Your task to perform on an android device: Clear the cart on walmart. Image 0: 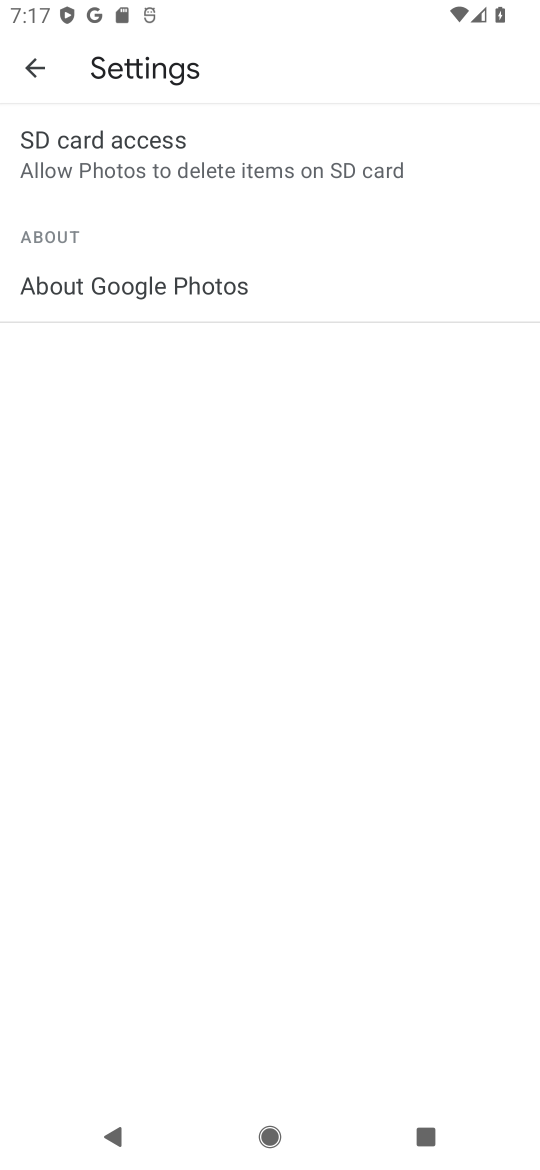
Step 0: press home button
Your task to perform on an android device: Clear the cart on walmart. Image 1: 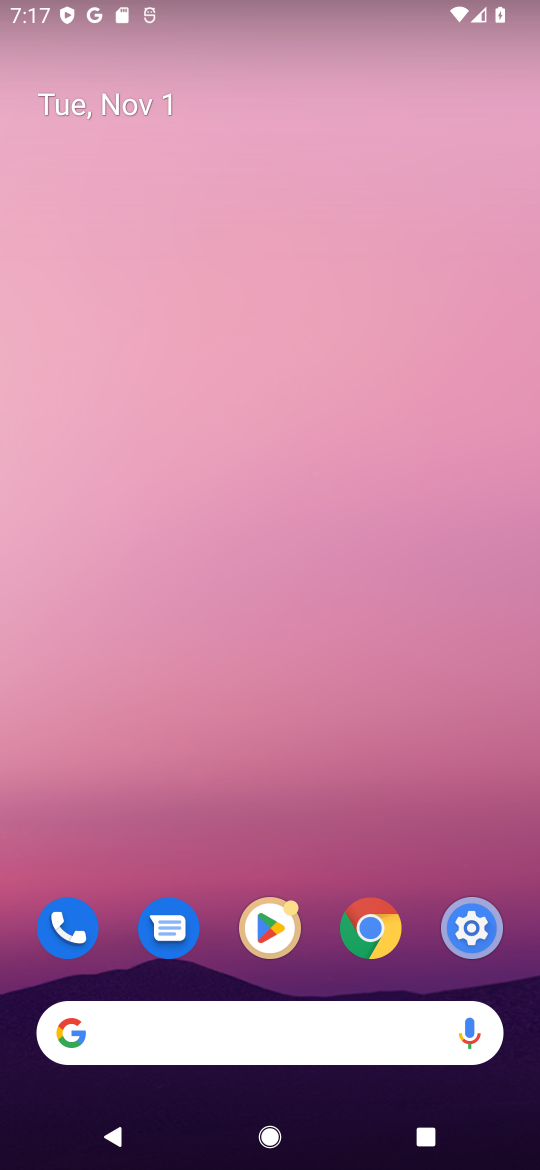
Step 1: click (245, 1032)
Your task to perform on an android device: Clear the cart on walmart. Image 2: 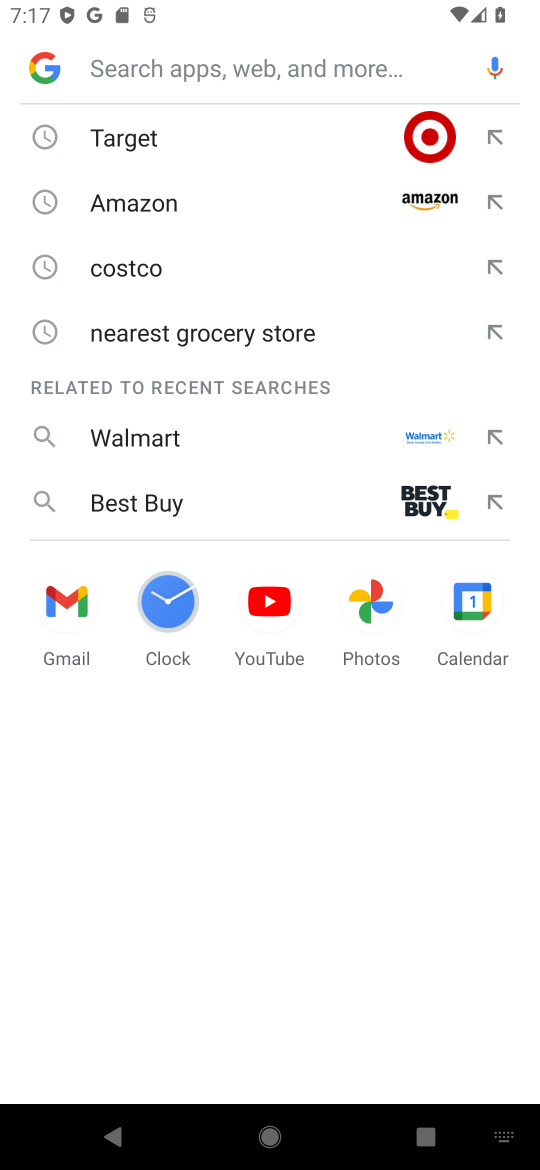
Step 2: click (158, 428)
Your task to perform on an android device: Clear the cart on walmart. Image 3: 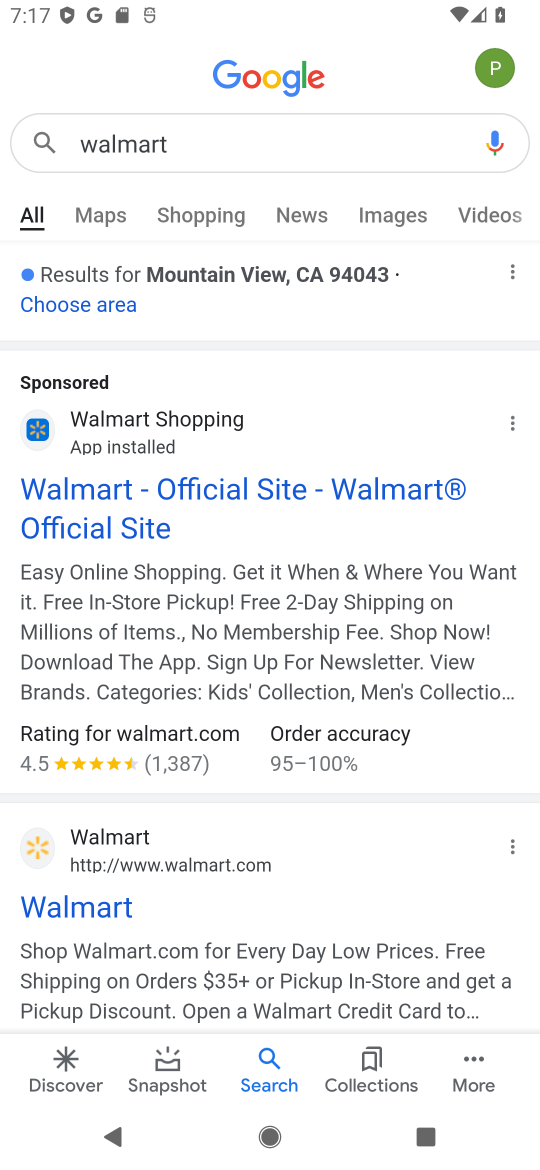
Step 3: click (116, 493)
Your task to perform on an android device: Clear the cart on walmart. Image 4: 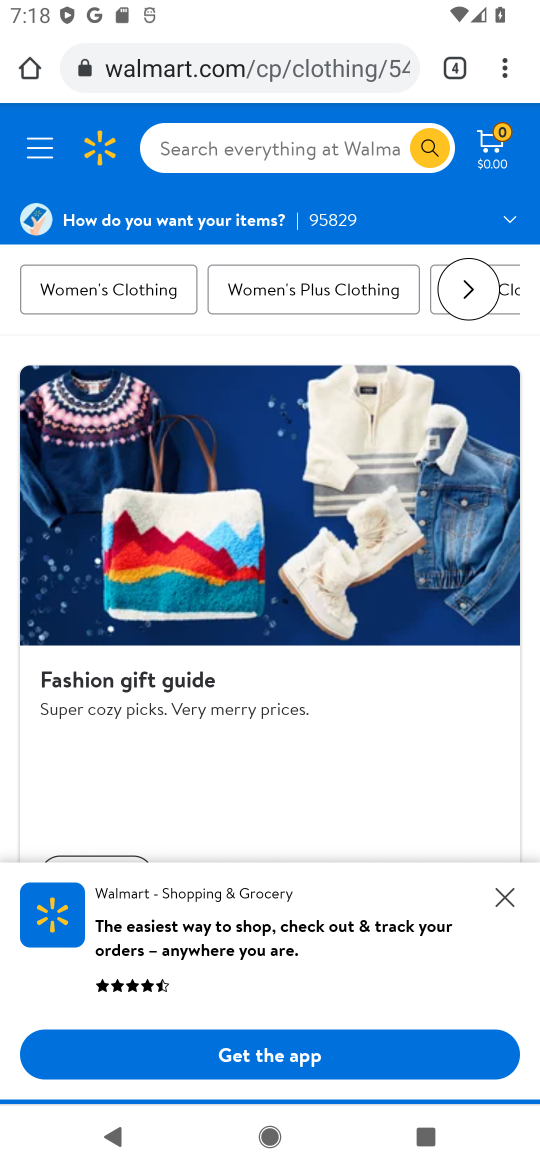
Step 4: click (508, 899)
Your task to perform on an android device: Clear the cart on walmart. Image 5: 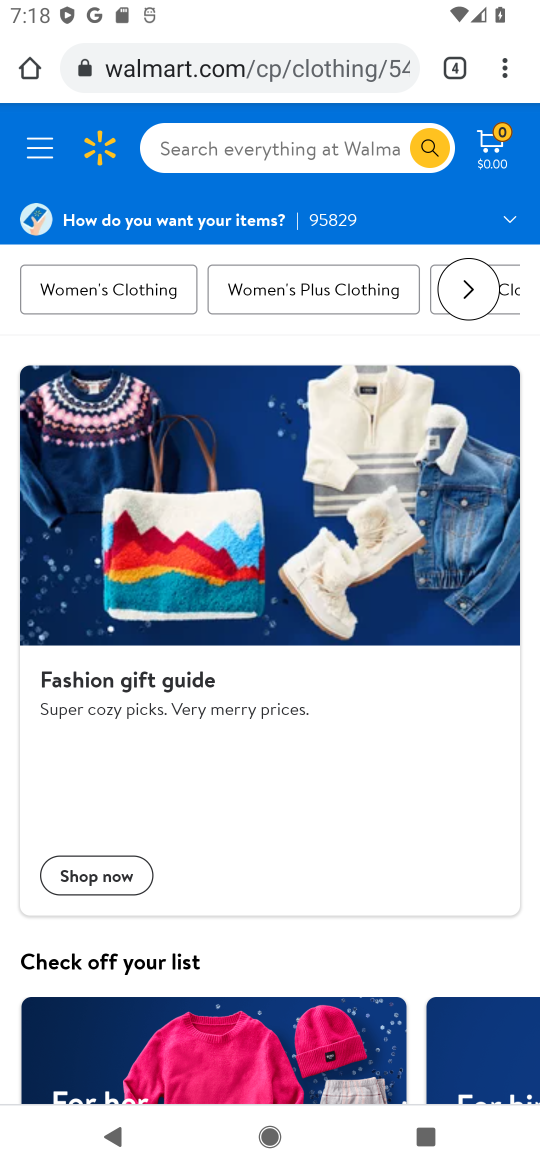
Step 5: task complete